Your task to perform on an android device: change timer sound Image 0: 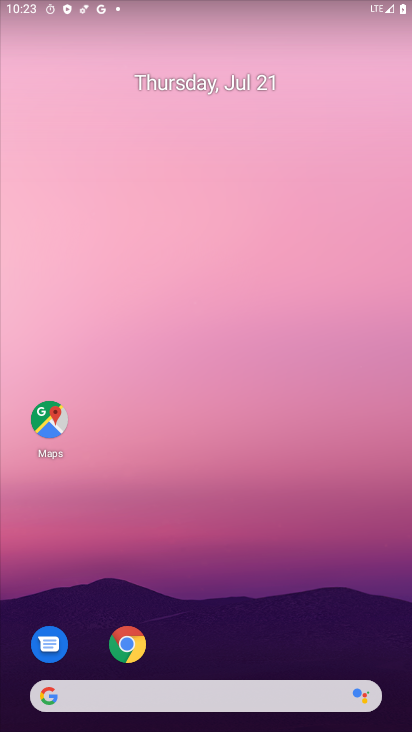
Step 0: press home button
Your task to perform on an android device: change timer sound Image 1: 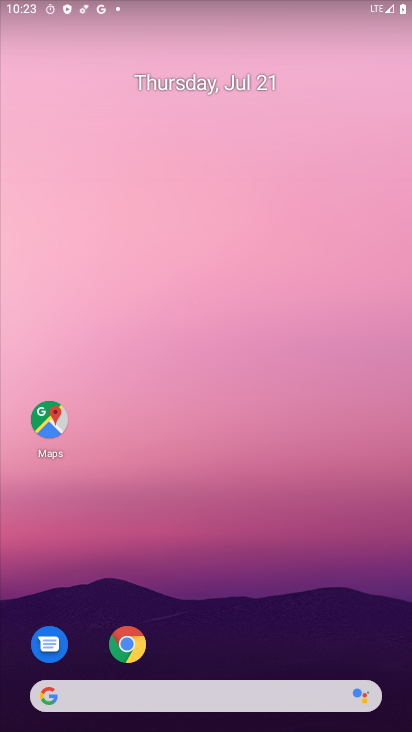
Step 1: drag from (222, 659) to (284, 3)
Your task to perform on an android device: change timer sound Image 2: 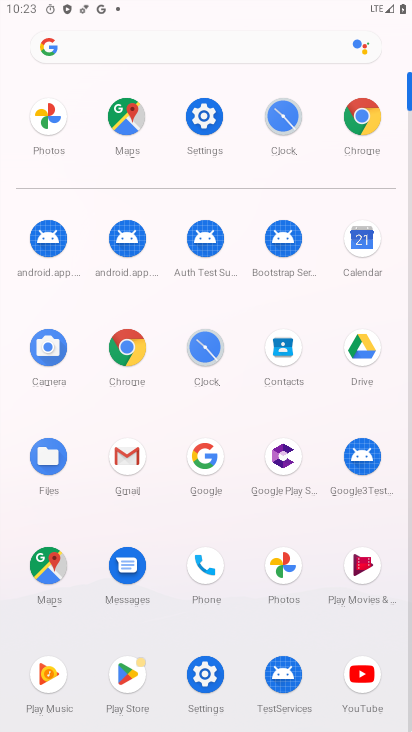
Step 2: click (203, 346)
Your task to perform on an android device: change timer sound Image 3: 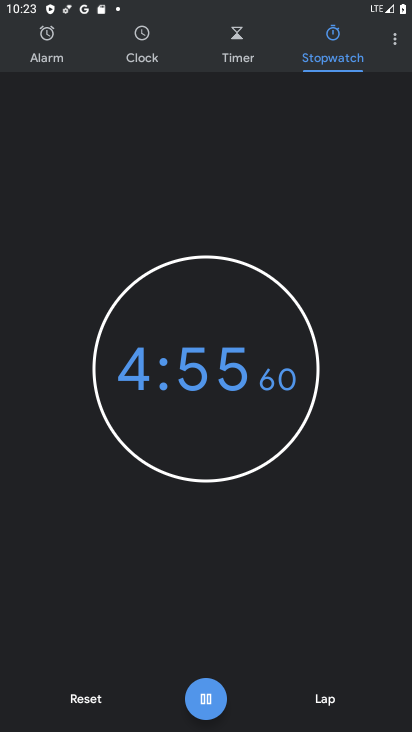
Step 3: click (394, 41)
Your task to perform on an android device: change timer sound Image 4: 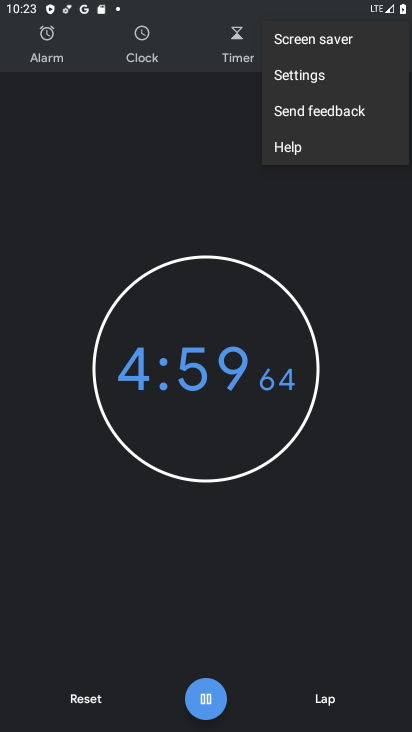
Step 4: click (324, 73)
Your task to perform on an android device: change timer sound Image 5: 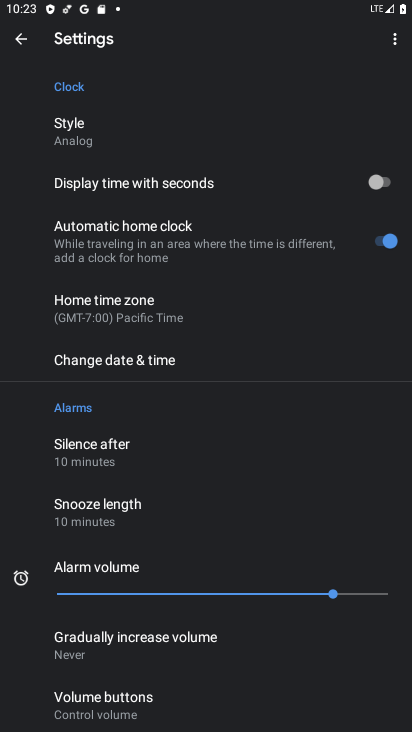
Step 5: drag from (171, 669) to (216, 121)
Your task to perform on an android device: change timer sound Image 6: 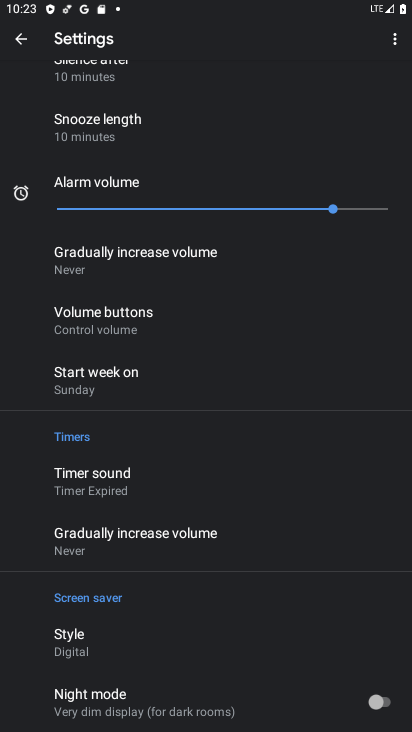
Step 6: click (137, 490)
Your task to perform on an android device: change timer sound Image 7: 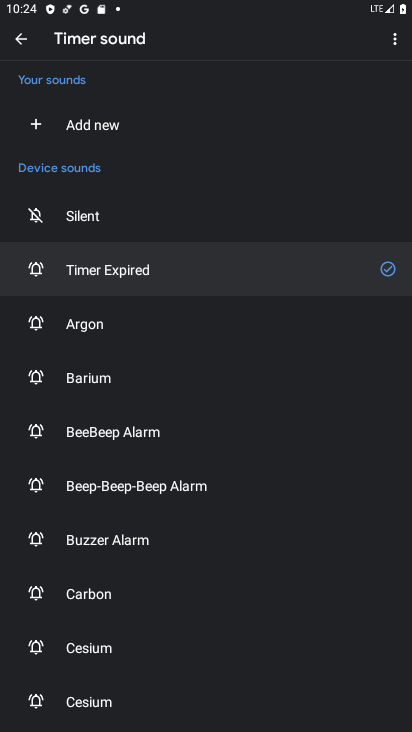
Step 7: click (121, 591)
Your task to perform on an android device: change timer sound Image 8: 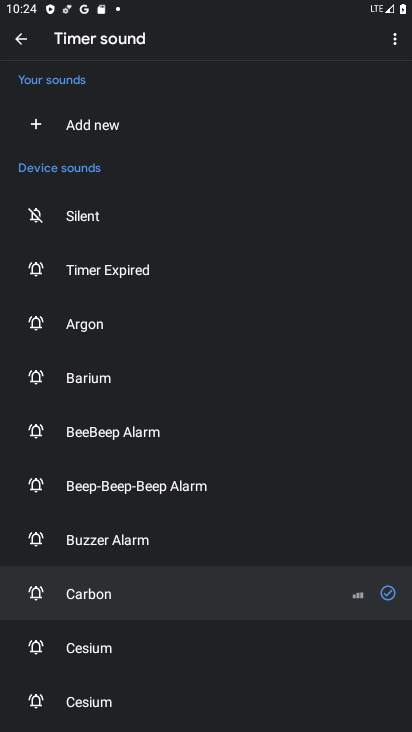
Step 8: task complete